Your task to perform on an android device: turn off wifi Image 0: 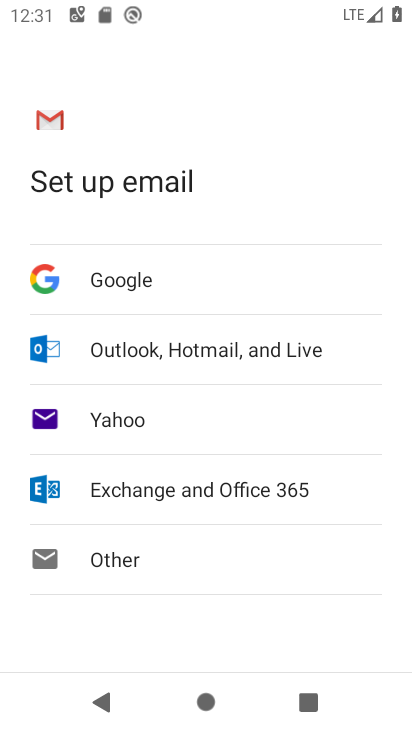
Step 0: press home button
Your task to perform on an android device: turn off wifi Image 1: 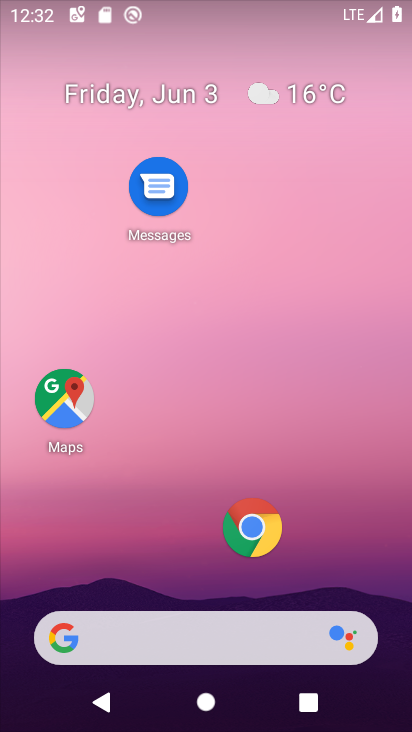
Step 1: task complete